Your task to perform on an android device: Open Google Maps and go to "Timeline" Image 0: 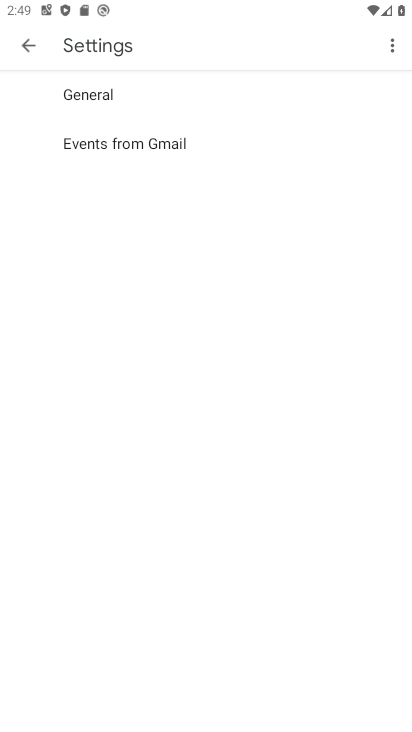
Step 0: press home button
Your task to perform on an android device: Open Google Maps and go to "Timeline" Image 1: 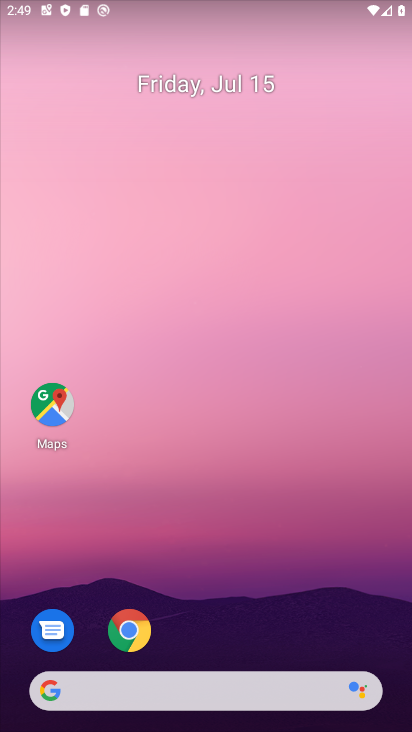
Step 1: drag from (274, 649) to (225, 26)
Your task to perform on an android device: Open Google Maps and go to "Timeline" Image 2: 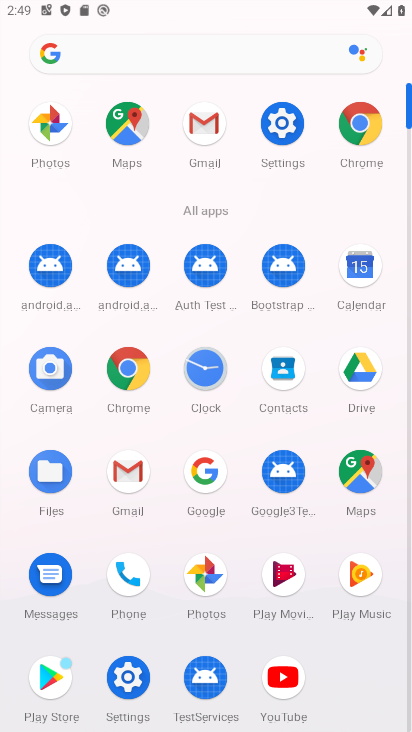
Step 2: click (366, 456)
Your task to perform on an android device: Open Google Maps and go to "Timeline" Image 3: 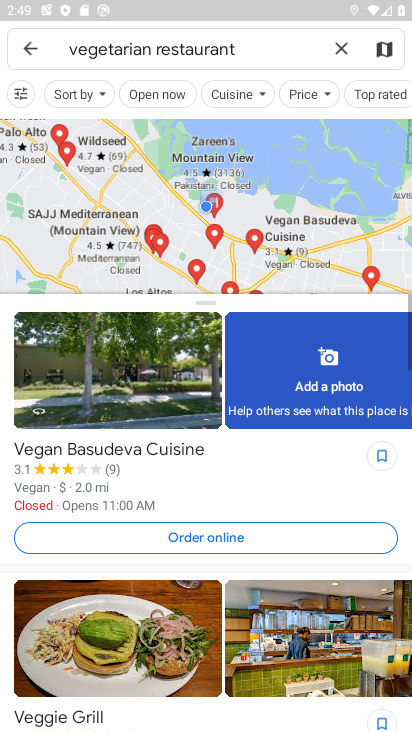
Step 3: click (26, 51)
Your task to perform on an android device: Open Google Maps and go to "Timeline" Image 4: 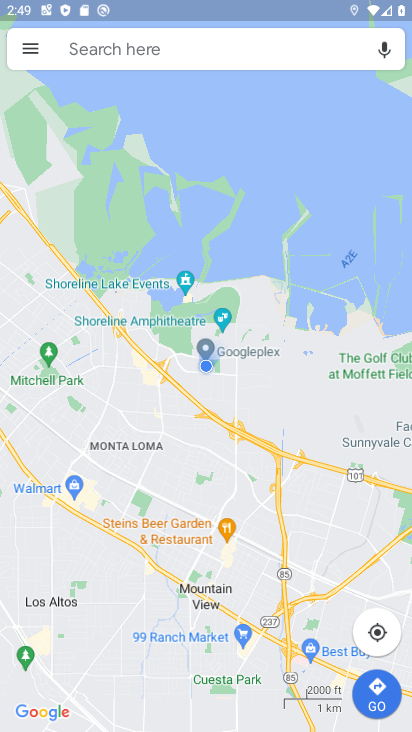
Step 4: click (26, 51)
Your task to perform on an android device: Open Google Maps and go to "Timeline" Image 5: 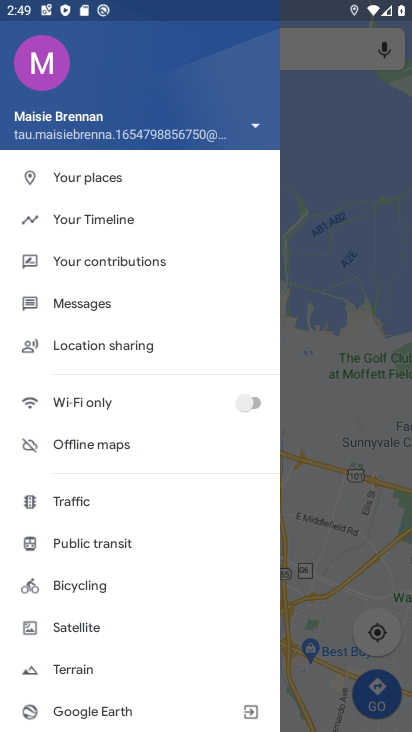
Step 5: click (103, 225)
Your task to perform on an android device: Open Google Maps and go to "Timeline" Image 6: 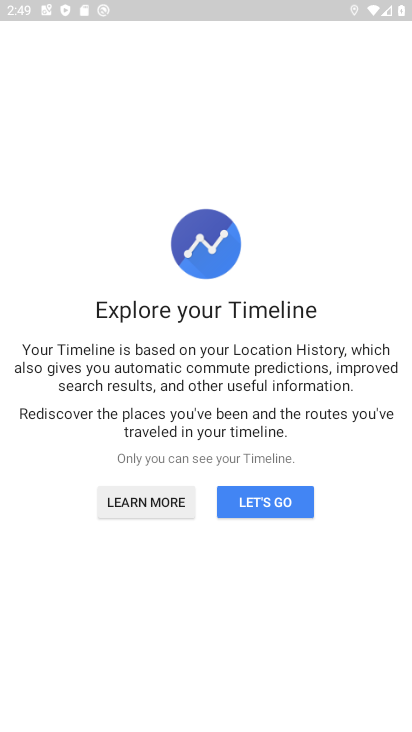
Step 6: click (269, 501)
Your task to perform on an android device: Open Google Maps and go to "Timeline" Image 7: 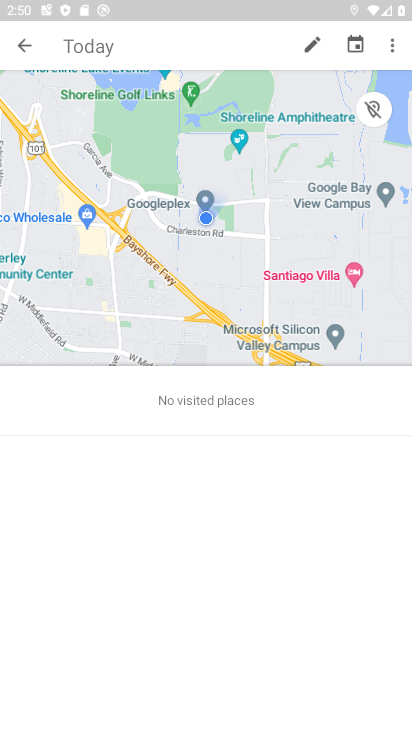
Step 7: task complete